Your task to perform on an android device: toggle translation in the chrome app Image 0: 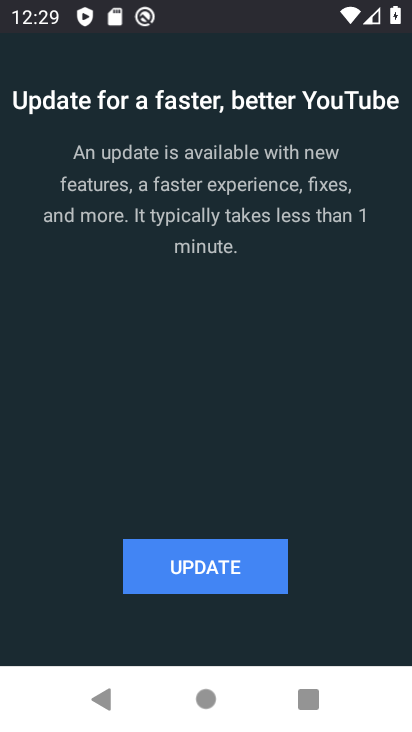
Step 0: press home button
Your task to perform on an android device: toggle translation in the chrome app Image 1: 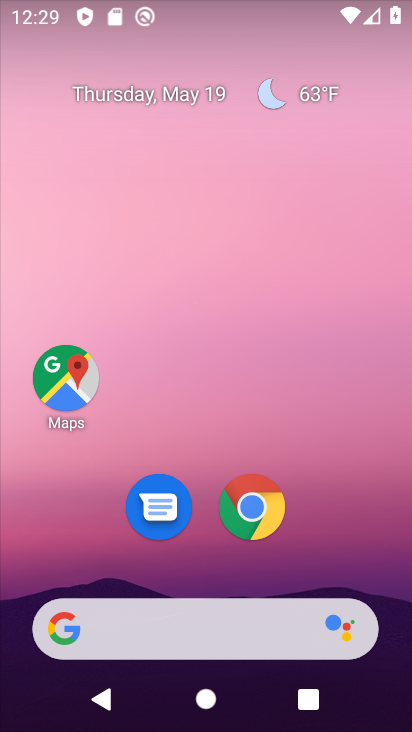
Step 1: click (240, 510)
Your task to perform on an android device: toggle translation in the chrome app Image 2: 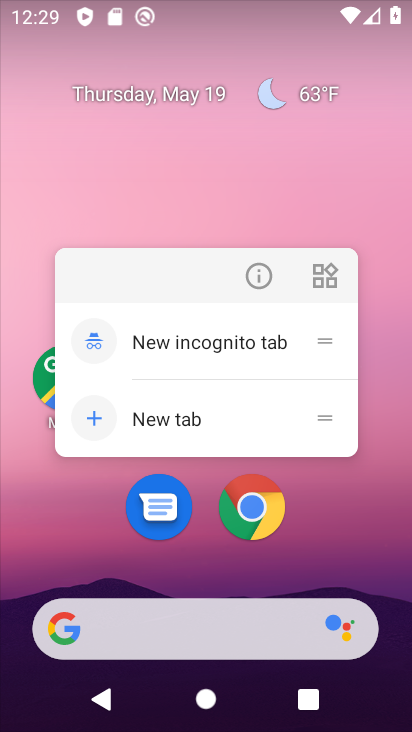
Step 2: click (249, 515)
Your task to perform on an android device: toggle translation in the chrome app Image 3: 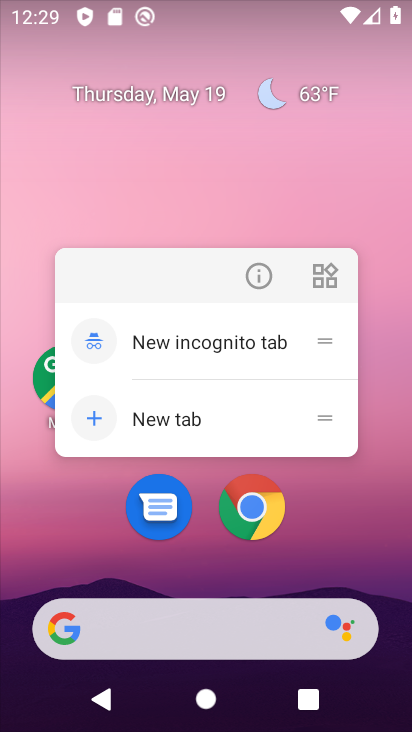
Step 3: click (255, 505)
Your task to perform on an android device: toggle translation in the chrome app Image 4: 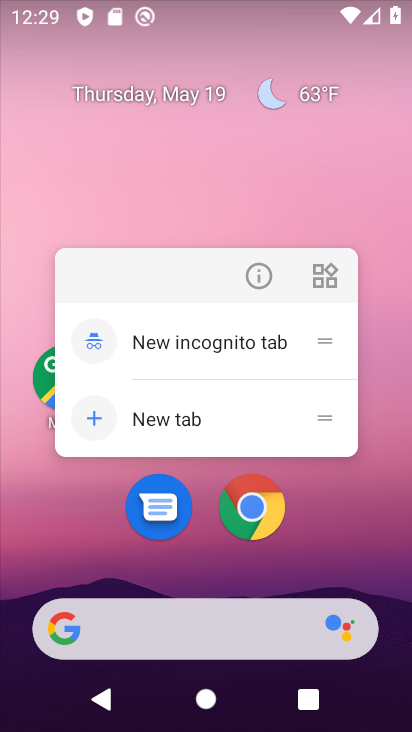
Step 4: click (248, 513)
Your task to perform on an android device: toggle translation in the chrome app Image 5: 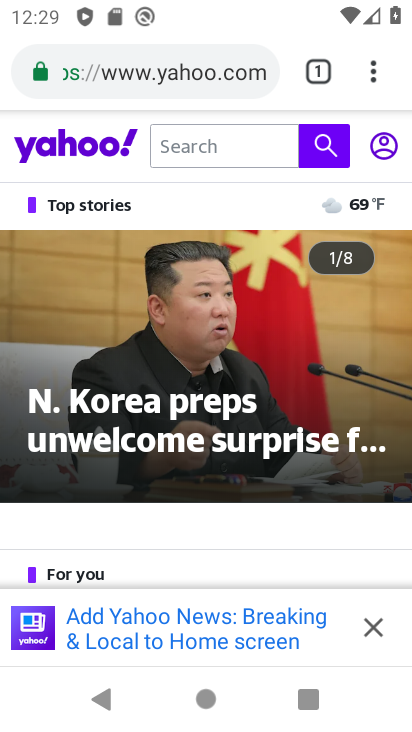
Step 5: click (371, 64)
Your task to perform on an android device: toggle translation in the chrome app Image 6: 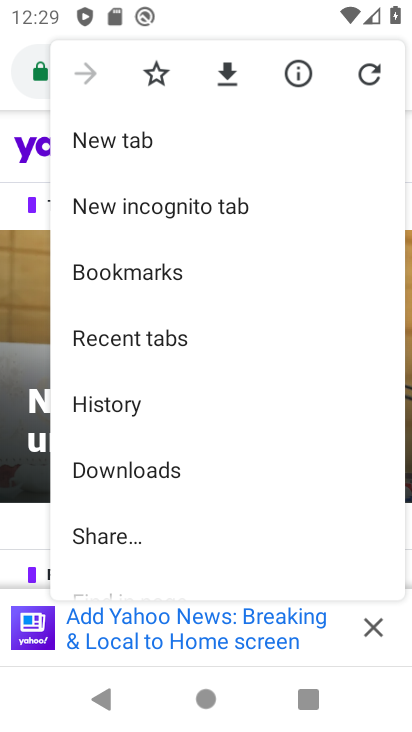
Step 6: drag from (171, 553) to (191, 113)
Your task to perform on an android device: toggle translation in the chrome app Image 7: 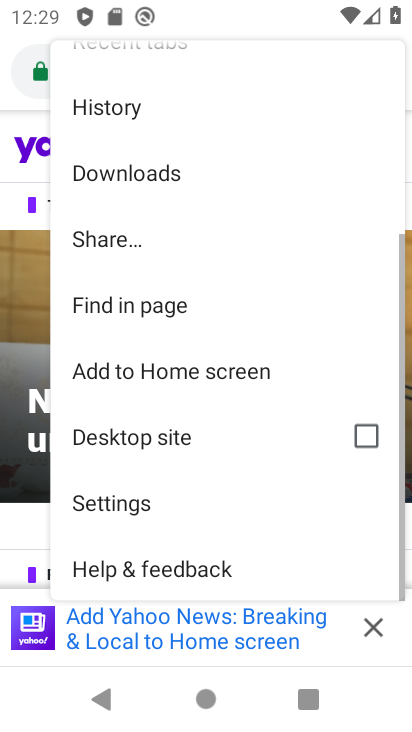
Step 7: click (141, 502)
Your task to perform on an android device: toggle translation in the chrome app Image 8: 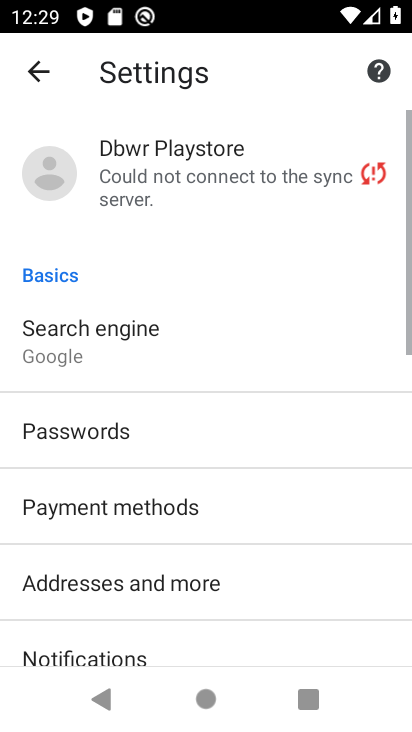
Step 8: drag from (135, 651) to (202, 262)
Your task to perform on an android device: toggle translation in the chrome app Image 9: 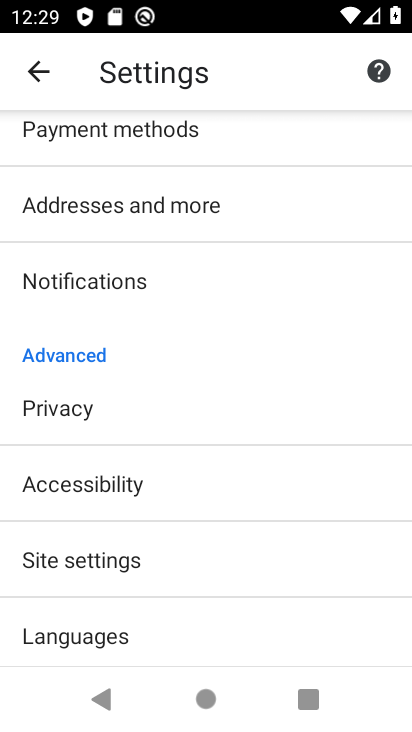
Step 9: click (48, 637)
Your task to perform on an android device: toggle translation in the chrome app Image 10: 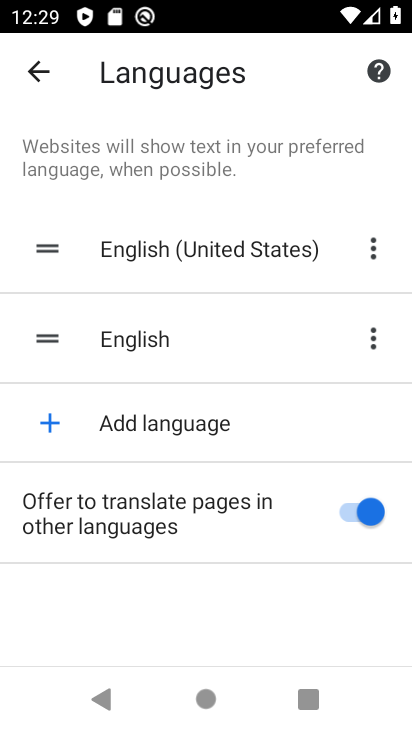
Step 10: click (355, 511)
Your task to perform on an android device: toggle translation in the chrome app Image 11: 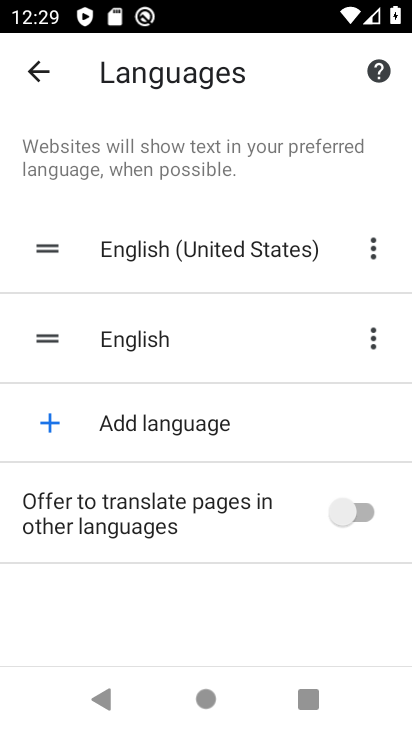
Step 11: task complete